Your task to perform on an android device: Open notification settings Image 0: 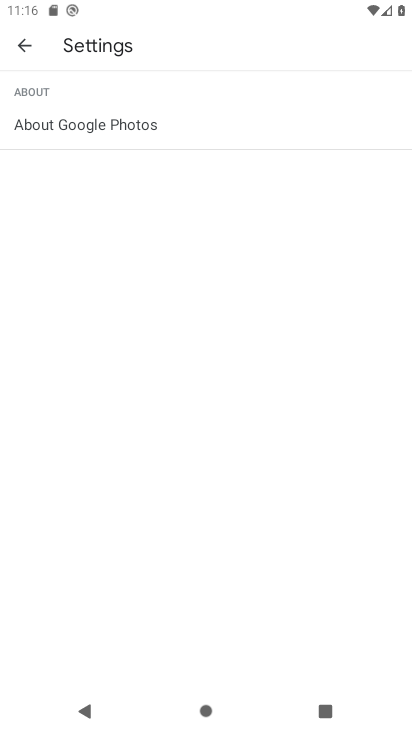
Step 0: press home button
Your task to perform on an android device: Open notification settings Image 1: 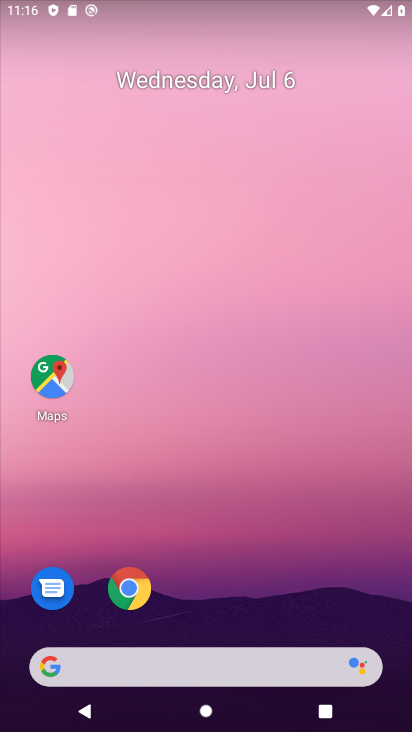
Step 1: drag from (250, 621) to (213, 50)
Your task to perform on an android device: Open notification settings Image 2: 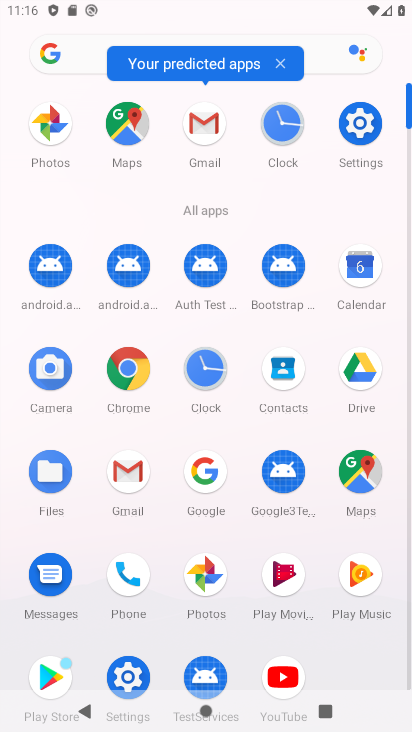
Step 2: click (369, 134)
Your task to perform on an android device: Open notification settings Image 3: 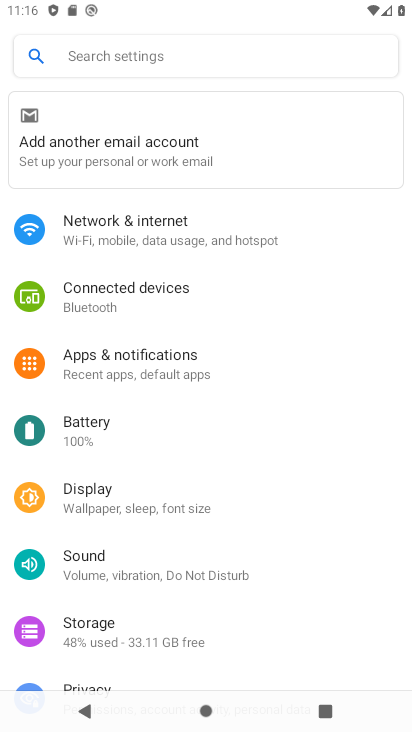
Step 3: click (254, 364)
Your task to perform on an android device: Open notification settings Image 4: 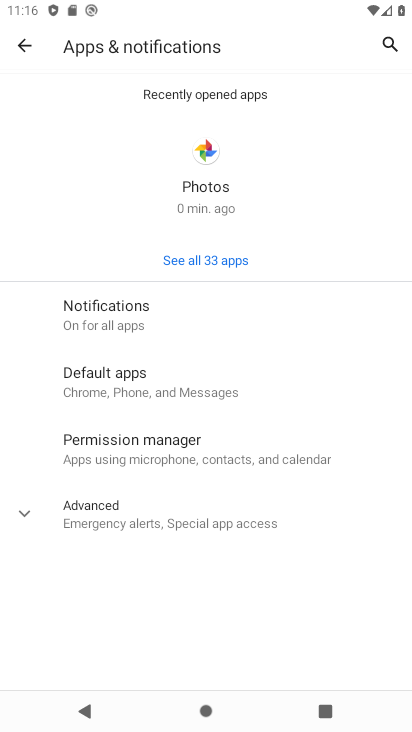
Step 4: click (210, 317)
Your task to perform on an android device: Open notification settings Image 5: 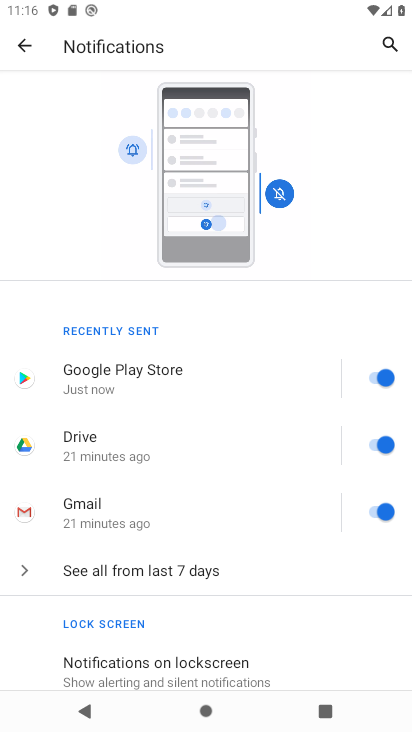
Step 5: drag from (205, 583) to (228, 131)
Your task to perform on an android device: Open notification settings Image 6: 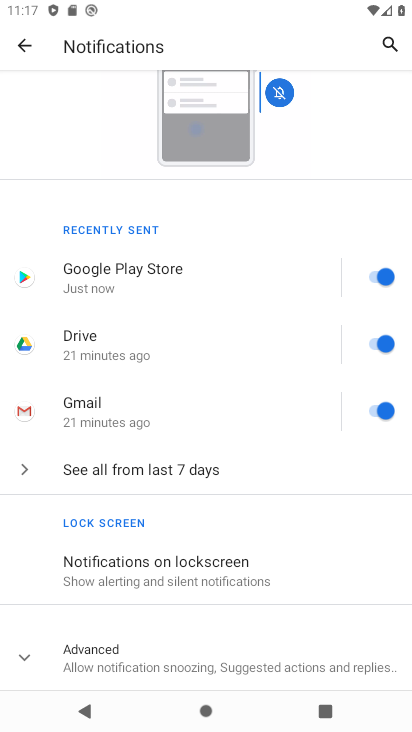
Step 6: click (177, 657)
Your task to perform on an android device: Open notification settings Image 7: 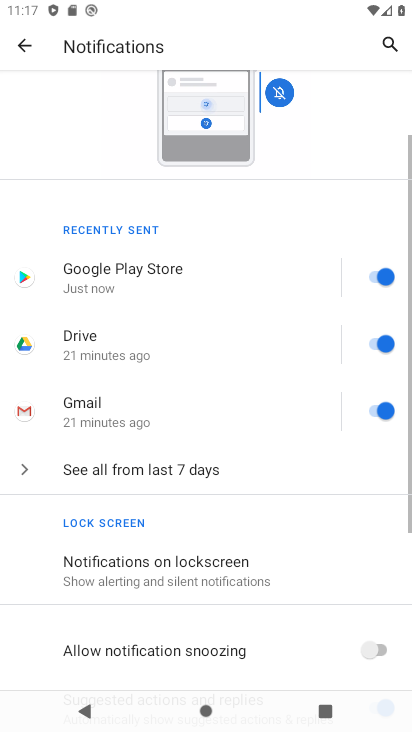
Step 7: task complete